Your task to perform on an android device: What's the weather today? Image 0: 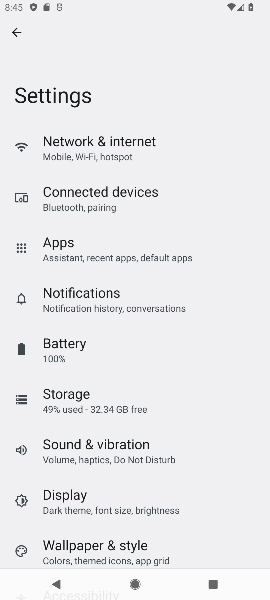
Step 0: press home button
Your task to perform on an android device: What's the weather today? Image 1: 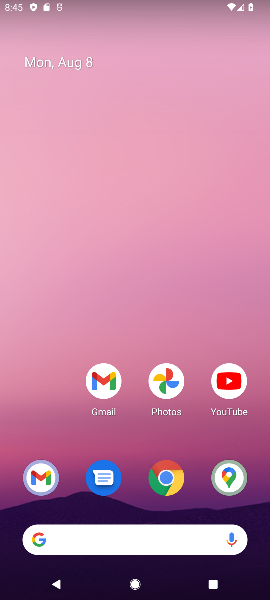
Step 1: click (98, 535)
Your task to perform on an android device: What's the weather today? Image 2: 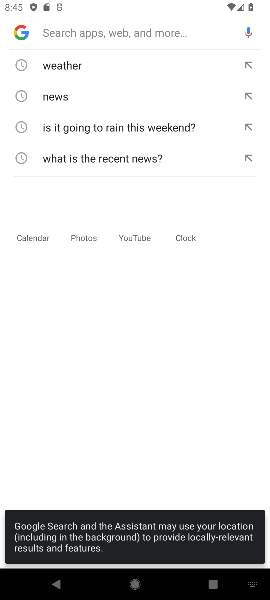
Step 2: click (69, 65)
Your task to perform on an android device: What's the weather today? Image 3: 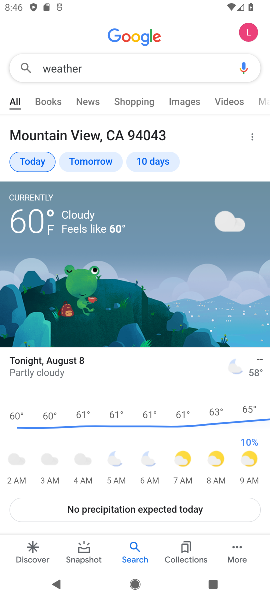
Step 3: task complete